Your task to perform on an android device: open app "TextNow: Call + Text Unlimited" (install if not already installed), go to login, and select forgot password Image 0: 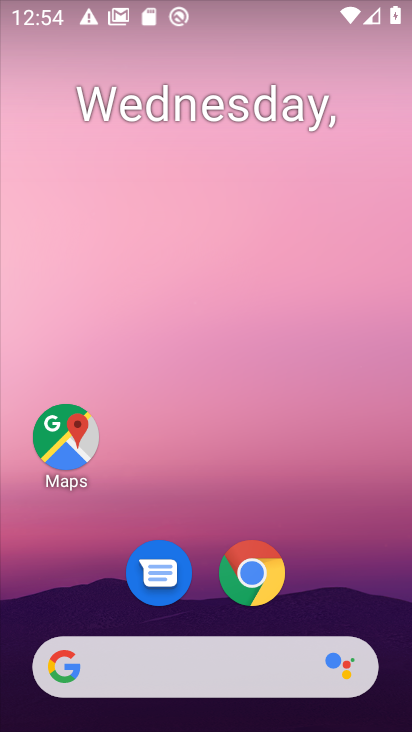
Step 0: drag from (332, 615) to (317, 84)
Your task to perform on an android device: open app "TextNow: Call + Text Unlimited" (install if not already installed), go to login, and select forgot password Image 1: 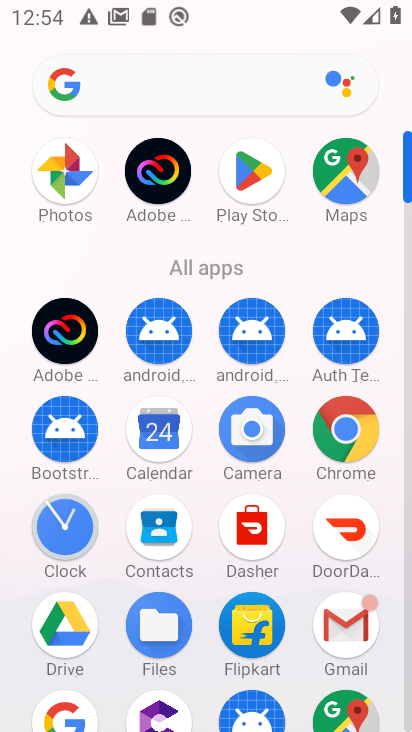
Step 1: click (247, 166)
Your task to perform on an android device: open app "TextNow: Call + Text Unlimited" (install if not already installed), go to login, and select forgot password Image 2: 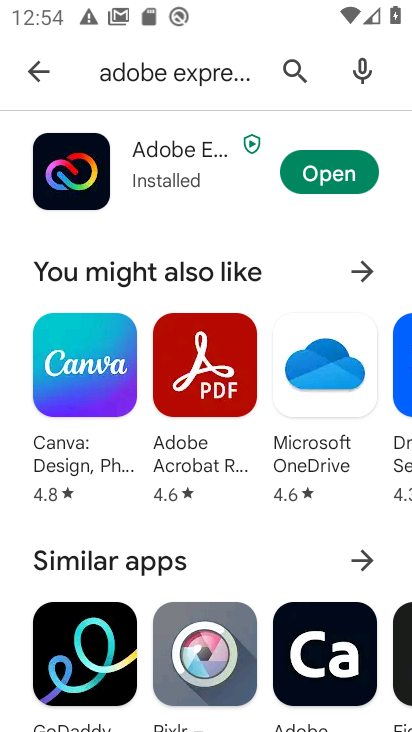
Step 2: click (282, 64)
Your task to perform on an android device: open app "TextNow: Call + Text Unlimited" (install if not already installed), go to login, and select forgot password Image 3: 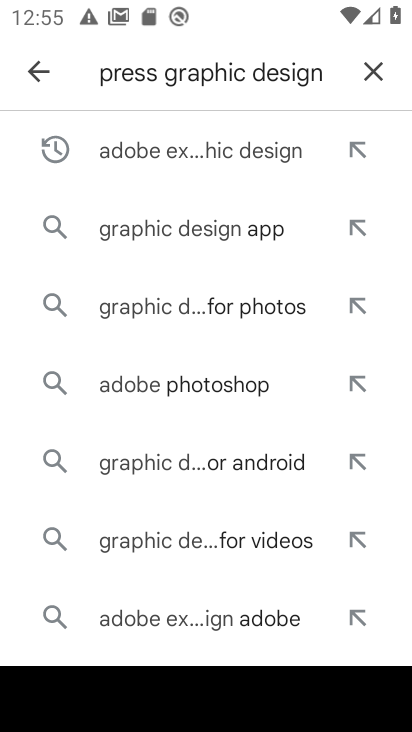
Step 3: click (369, 75)
Your task to perform on an android device: open app "TextNow: Call + Text Unlimited" (install if not already installed), go to login, and select forgot password Image 4: 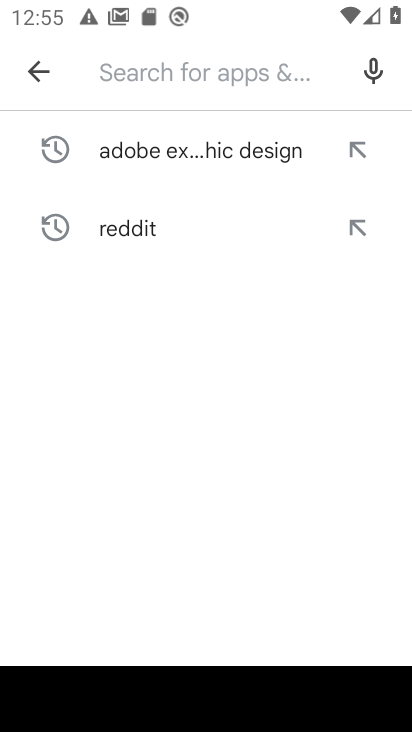
Step 4: type "TextNow: Call + Text Unlimited"
Your task to perform on an android device: open app "TextNow: Call + Text Unlimited" (install if not already installed), go to login, and select forgot password Image 5: 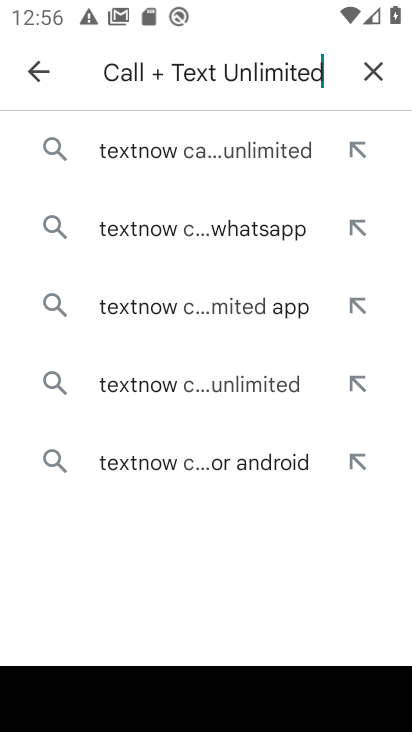
Step 5: click (221, 150)
Your task to perform on an android device: open app "TextNow: Call + Text Unlimited" (install if not already installed), go to login, and select forgot password Image 6: 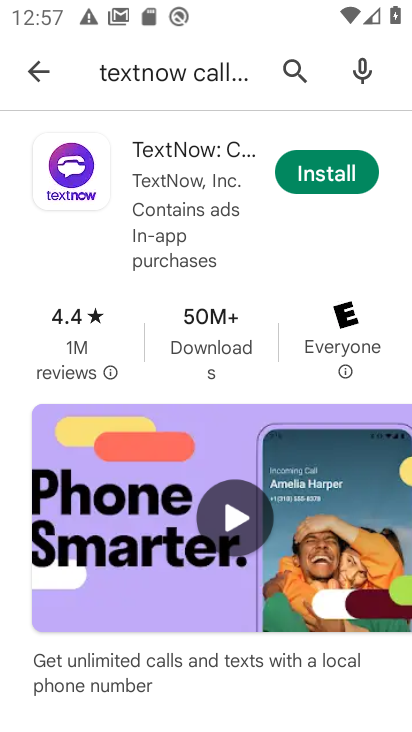
Step 6: click (336, 172)
Your task to perform on an android device: open app "TextNow: Call + Text Unlimited" (install if not already installed), go to login, and select forgot password Image 7: 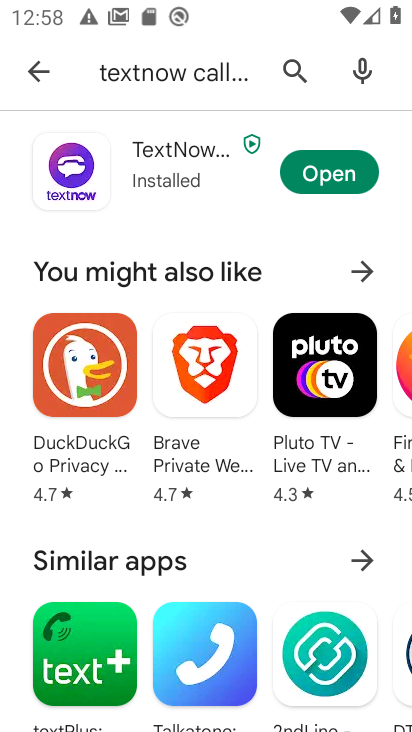
Step 7: click (341, 176)
Your task to perform on an android device: open app "TextNow: Call + Text Unlimited" (install if not already installed), go to login, and select forgot password Image 8: 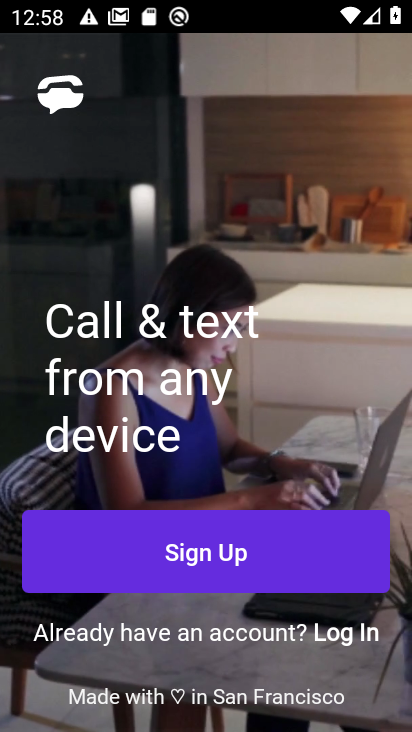
Step 8: click (339, 630)
Your task to perform on an android device: open app "TextNow: Call + Text Unlimited" (install if not already installed), go to login, and select forgot password Image 9: 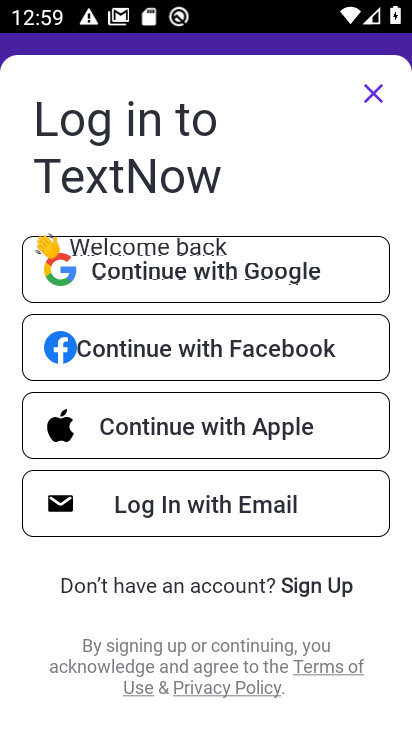
Step 9: click (164, 264)
Your task to perform on an android device: open app "TextNow: Call + Text Unlimited" (install if not already installed), go to login, and select forgot password Image 10: 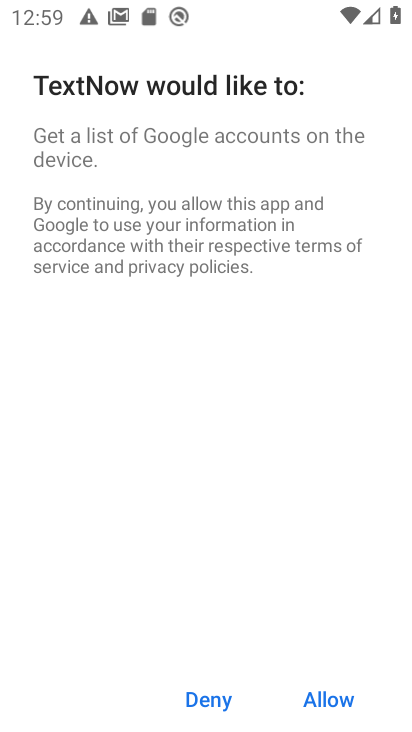
Step 10: click (343, 711)
Your task to perform on an android device: open app "TextNow: Call + Text Unlimited" (install if not already installed), go to login, and select forgot password Image 11: 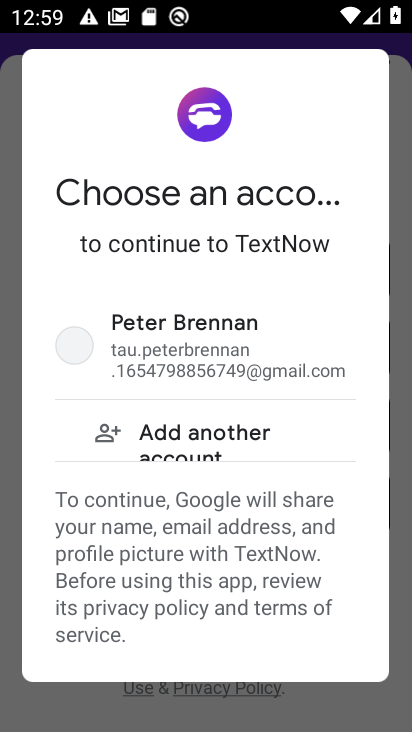
Step 11: click (170, 338)
Your task to perform on an android device: open app "TextNow: Call + Text Unlimited" (install if not already installed), go to login, and select forgot password Image 12: 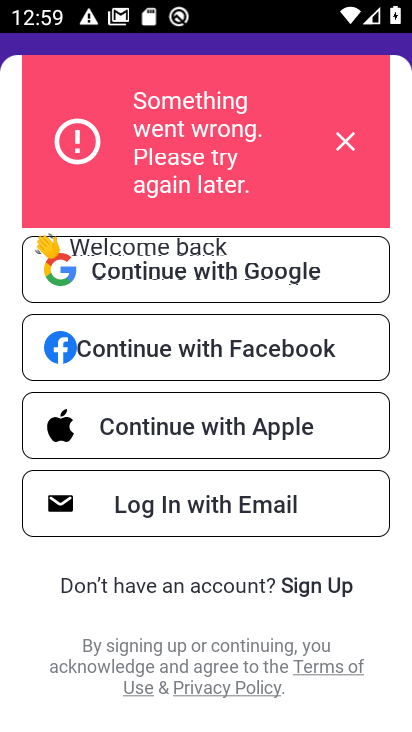
Step 12: click (349, 134)
Your task to perform on an android device: open app "TextNow: Call + Text Unlimited" (install if not already installed), go to login, and select forgot password Image 13: 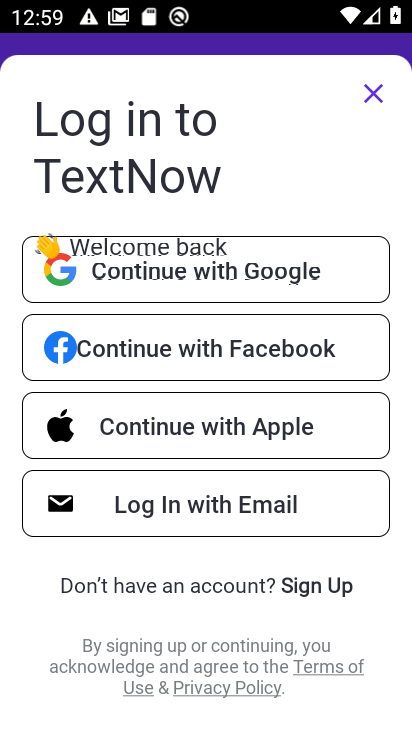
Step 13: task complete